Your task to perform on an android device: star an email in the gmail app Image 0: 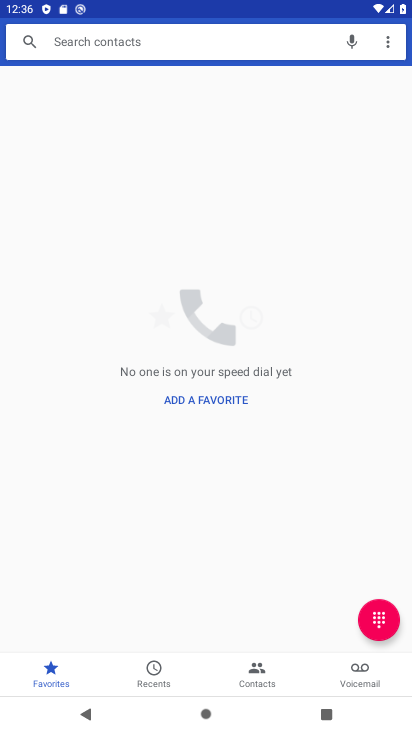
Step 0: press home button
Your task to perform on an android device: star an email in the gmail app Image 1: 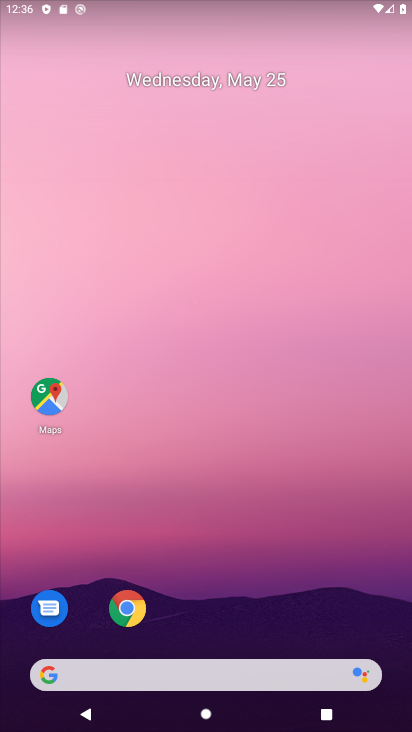
Step 1: drag from (142, 591) to (269, 75)
Your task to perform on an android device: star an email in the gmail app Image 2: 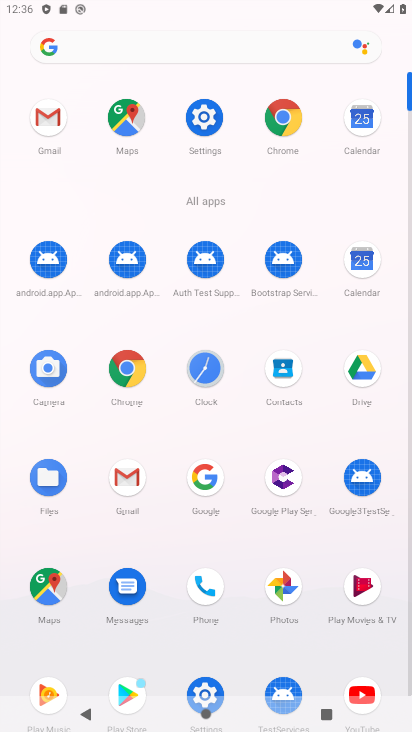
Step 2: click (129, 479)
Your task to perform on an android device: star an email in the gmail app Image 3: 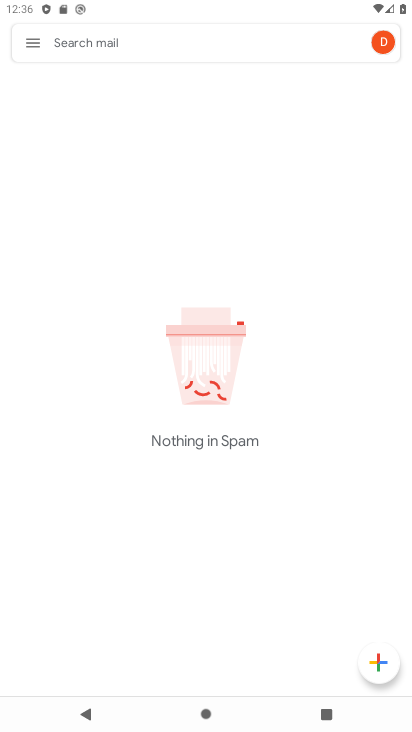
Step 3: click (34, 42)
Your task to perform on an android device: star an email in the gmail app Image 4: 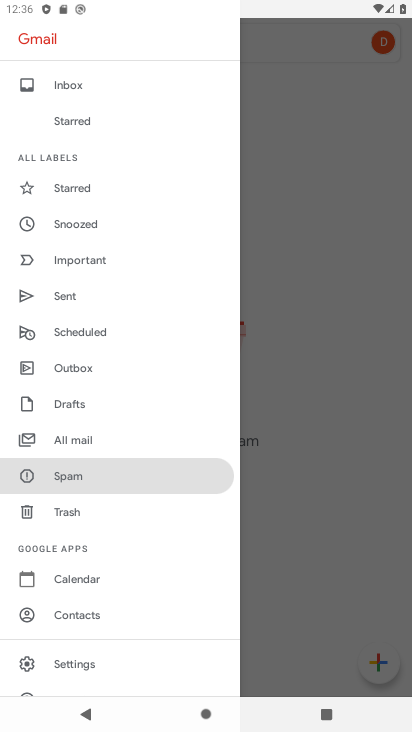
Step 4: click (89, 440)
Your task to perform on an android device: star an email in the gmail app Image 5: 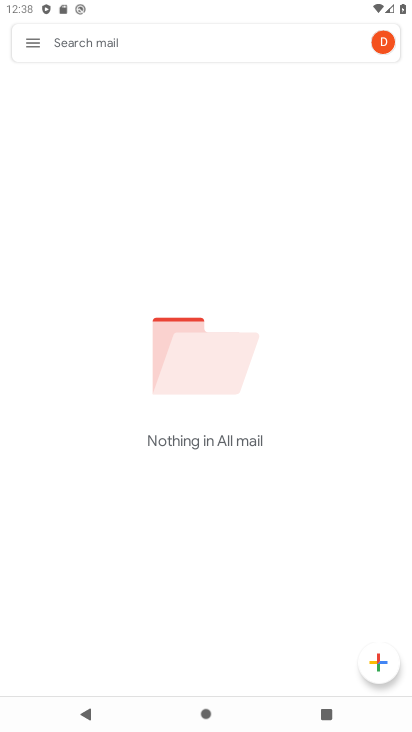
Step 5: task complete